Your task to perform on an android device: Open the phone app and click the voicemail tab. Image 0: 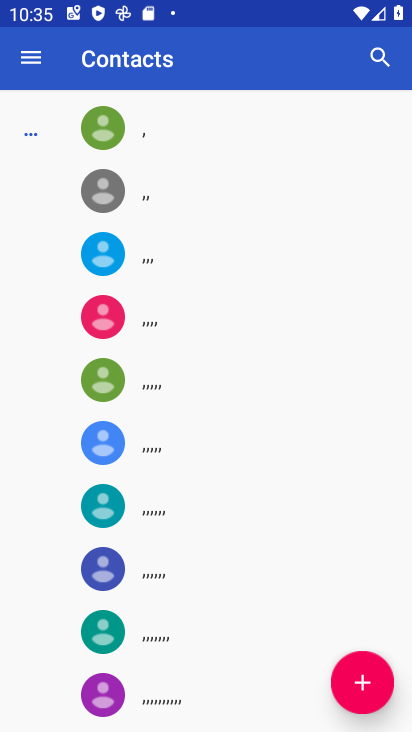
Step 0: press home button
Your task to perform on an android device: Open the phone app and click the voicemail tab. Image 1: 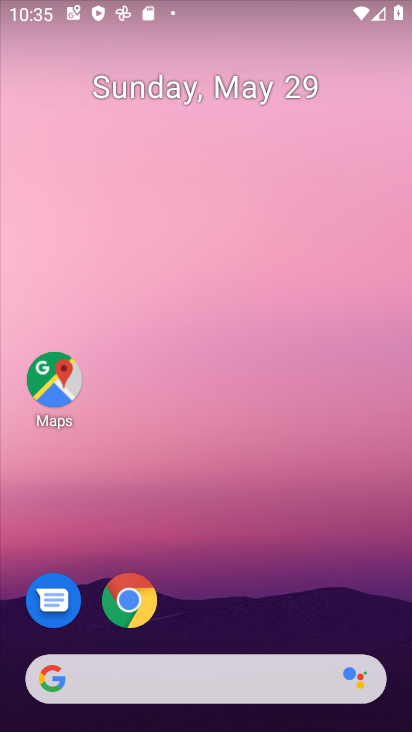
Step 1: drag from (218, 721) to (269, 68)
Your task to perform on an android device: Open the phone app and click the voicemail tab. Image 2: 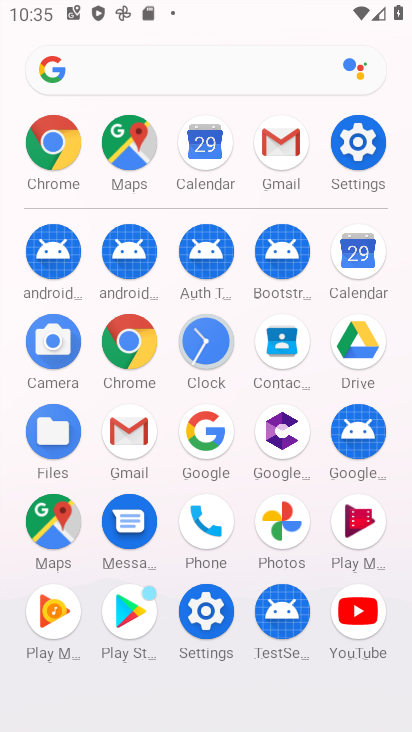
Step 2: click (219, 521)
Your task to perform on an android device: Open the phone app and click the voicemail tab. Image 3: 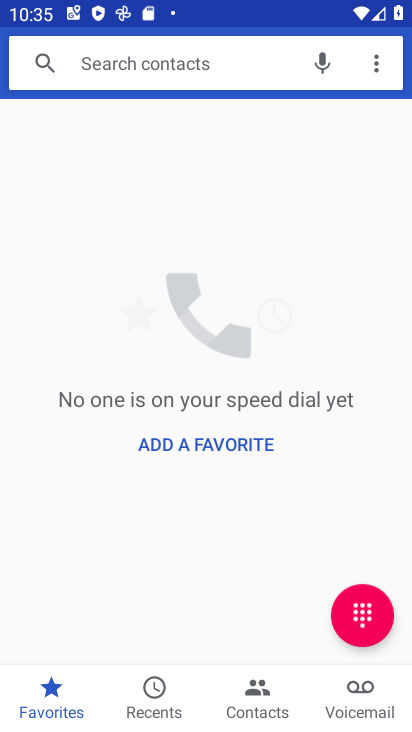
Step 3: click (364, 689)
Your task to perform on an android device: Open the phone app and click the voicemail tab. Image 4: 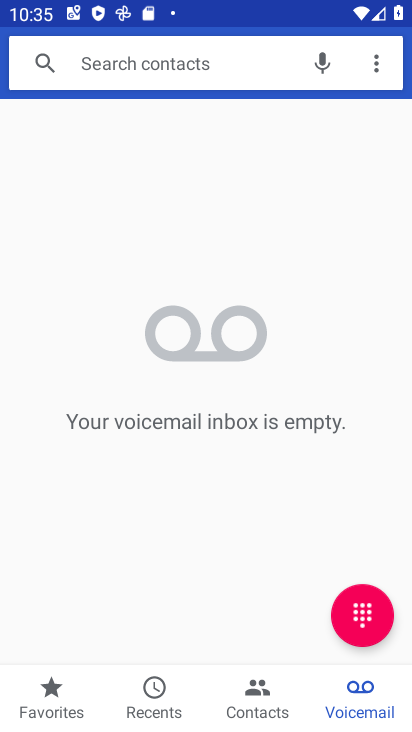
Step 4: task complete